Your task to perform on an android device: open chrome privacy settings Image 0: 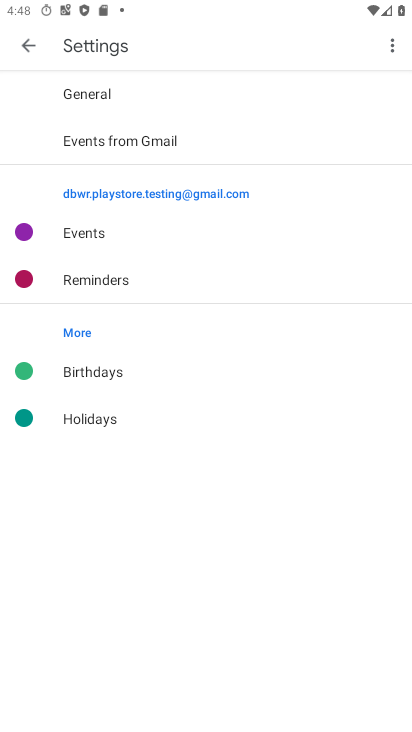
Step 0: press back button
Your task to perform on an android device: open chrome privacy settings Image 1: 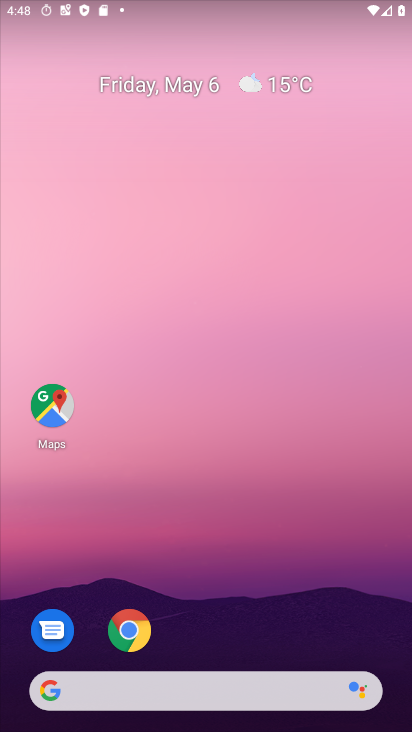
Step 1: click (124, 626)
Your task to perform on an android device: open chrome privacy settings Image 2: 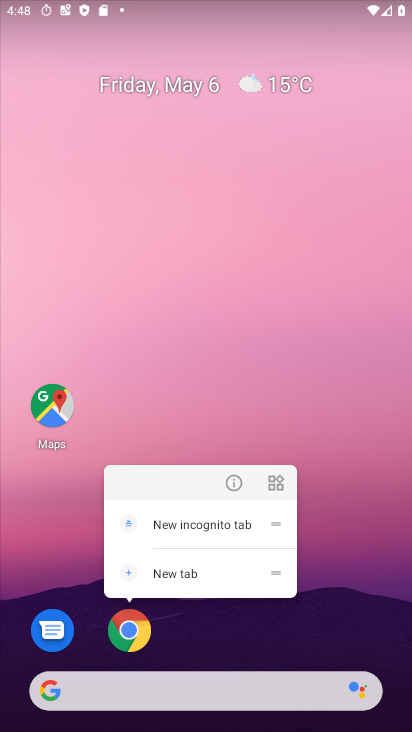
Step 2: click (127, 626)
Your task to perform on an android device: open chrome privacy settings Image 3: 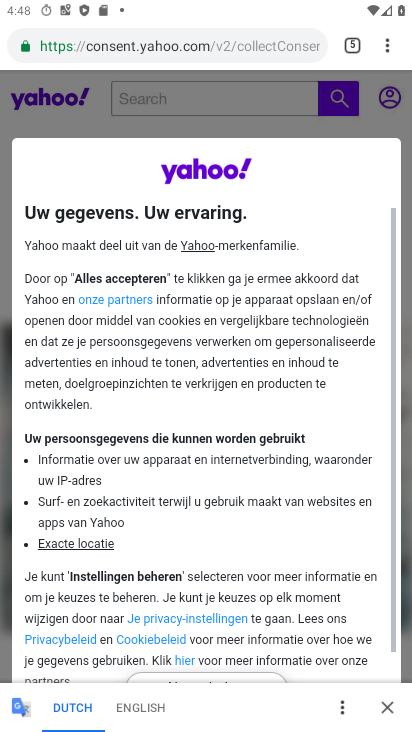
Step 3: drag from (390, 44) to (243, 545)
Your task to perform on an android device: open chrome privacy settings Image 4: 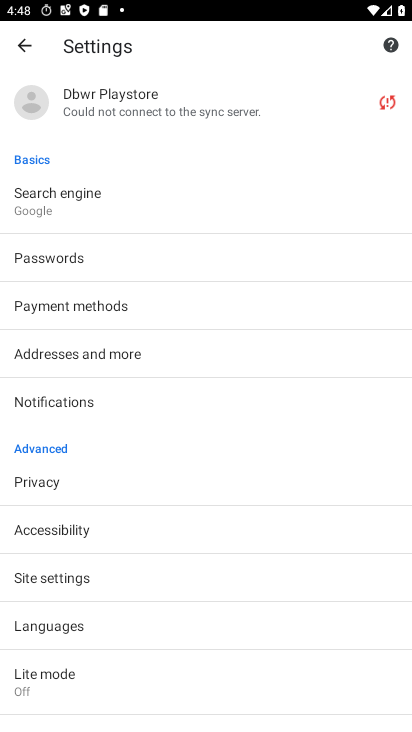
Step 4: click (41, 481)
Your task to perform on an android device: open chrome privacy settings Image 5: 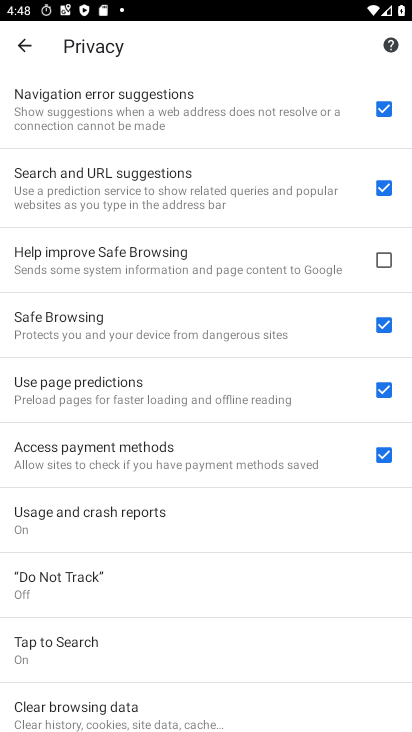
Step 5: task complete